Your task to perform on an android device: turn on the 24-hour format for clock Image 0: 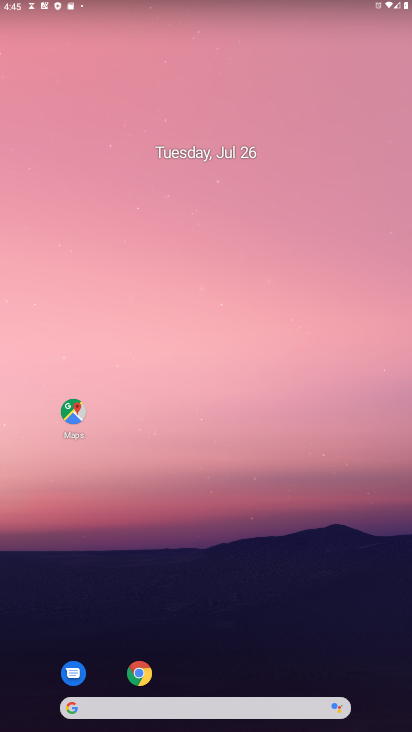
Step 0: drag from (175, 706) to (269, 8)
Your task to perform on an android device: turn on the 24-hour format for clock Image 1: 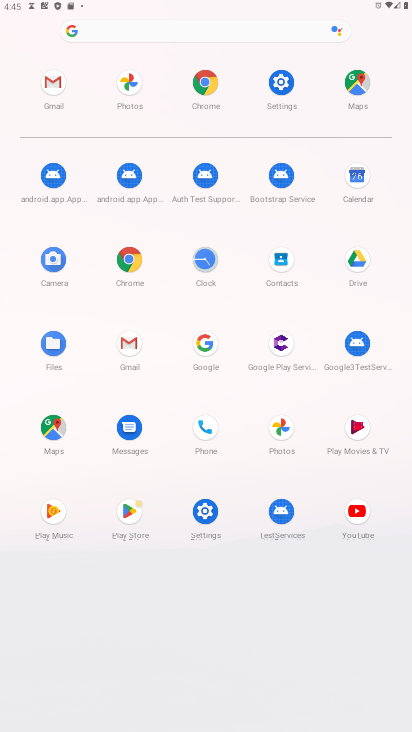
Step 1: click (206, 260)
Your task to perform on an android device: turn on the 24-hour format for clock Image 2: 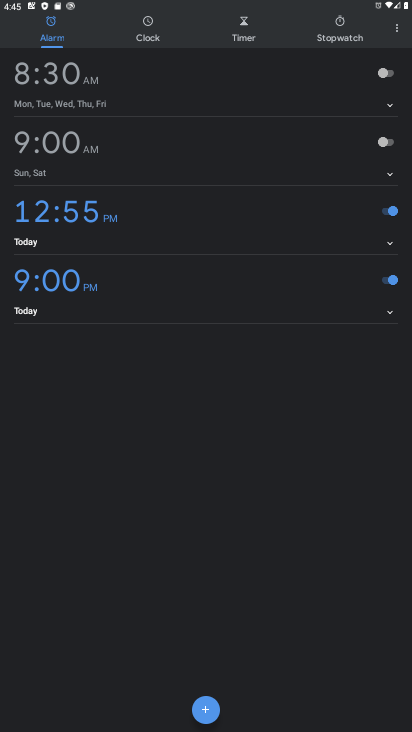
Step 2: click (398, 29)
Your task to perform on an android device: turn on the 24-hour format for clock Image 3: 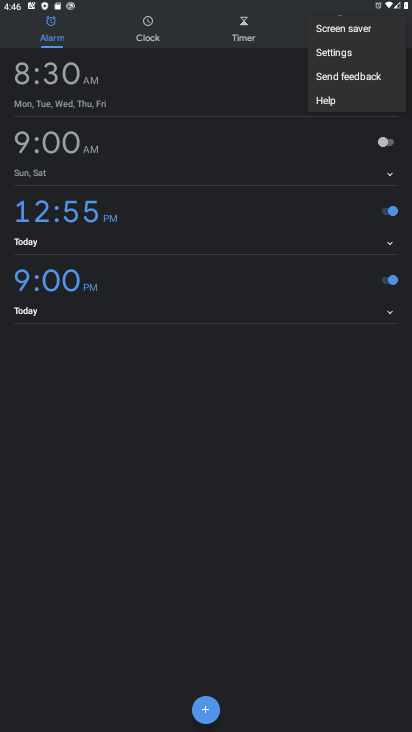
Step 3: click (339, 55)
Your task to perform on an android device: turn on the 24-hour format for clock Image 4: 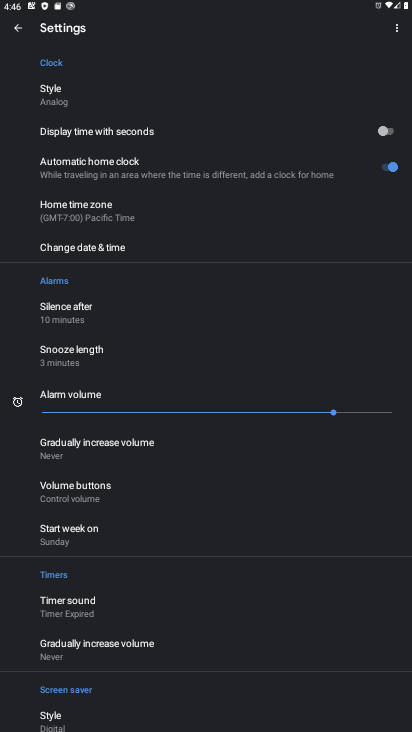
Step 4: click (79, 244)
Your task to perform on an android device: turn on the 24-hour format for clock Image 5: 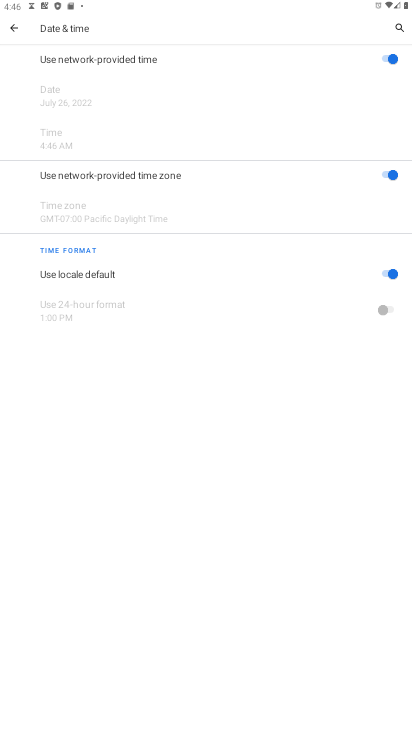
Step 5: click (391, 274)
Your task to perform on an android device: turn on the 24-hour format for clock Image 6: 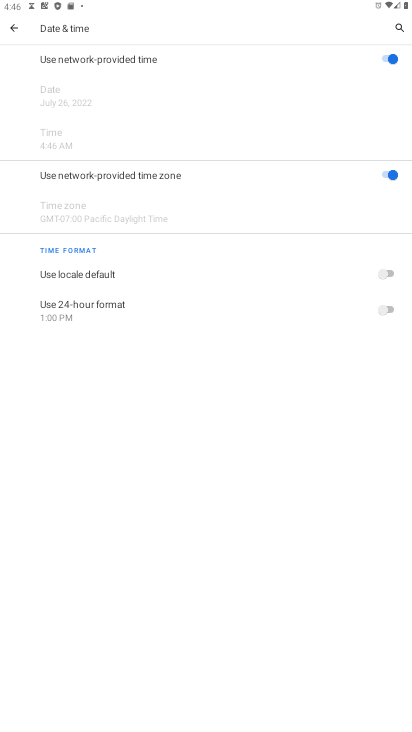
Step 6: click (390, 311)
Your task to perform on an android device: turn on the 24-hour format for clock Image 7: 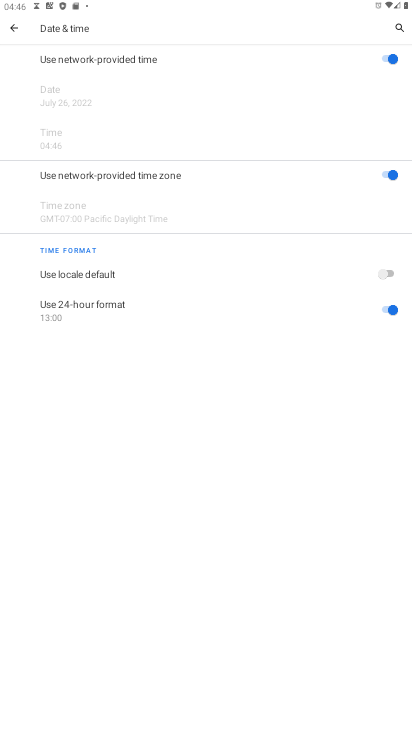
Step 7: task complete